Your task to perform on an android device: Do I have any events tomorrow? Image 0: 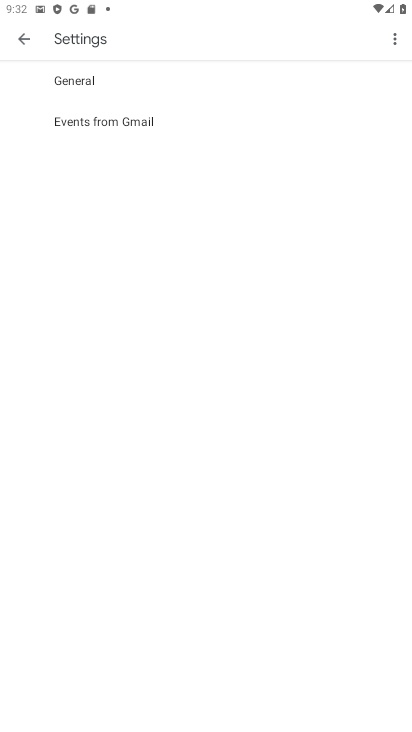
Step 0: press home button
Your task to perform on an android device: Do I have any events tomorrow? Image 1: 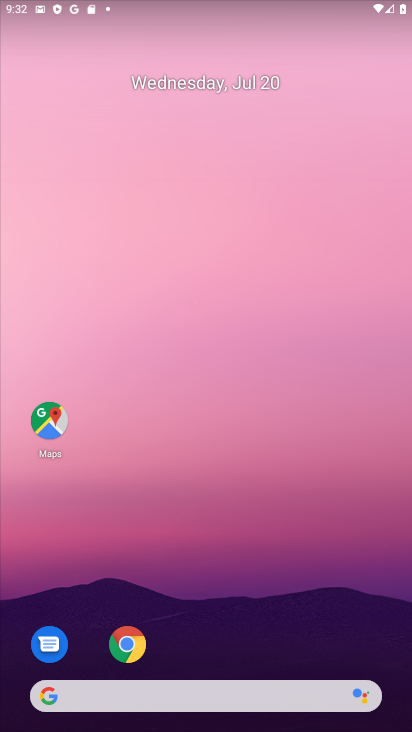
Step 1: drag from (233, 586) to (192, 9)
Your task to perform on an android device: Do I have any events tomorrow? Image 2: 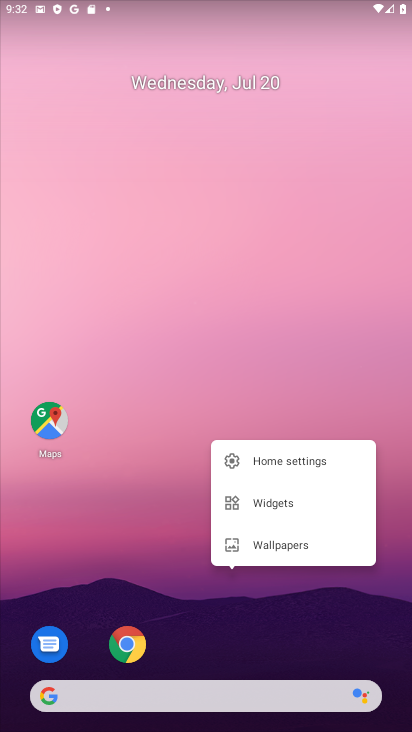
Step 2: click (197, 575)
Your task to perform on an android device: Do I have any events tomorrow? Image 3: 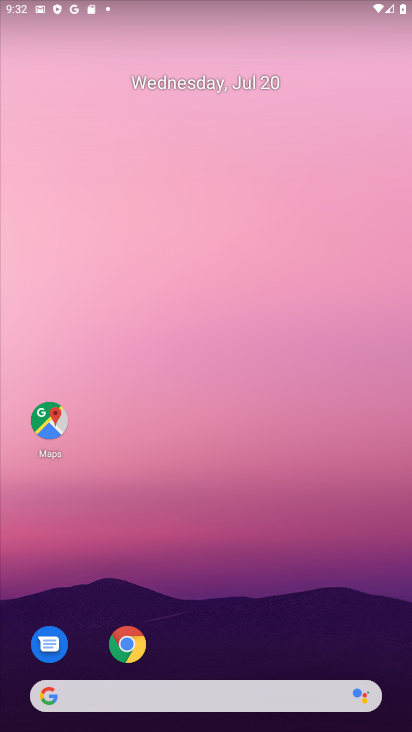
Step 3: drag from (219, 576) to (211, 166)
Your task to perform on an android device: Do I have any events tomorrow? Image 4: 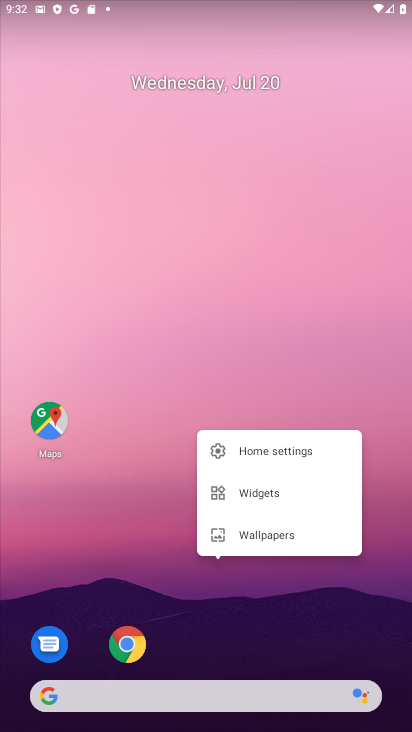
Step 4: click (84, 583)
Your task to perform on an android device: Do I have any events tomorrow? Image 5: 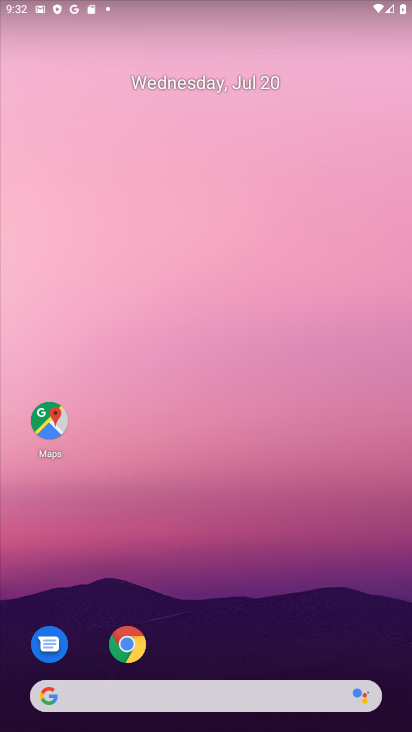
Step 5: drag from (213, 611) to (213, 147)
Your task to perform on an android device: Do I have any events tomorrow? Image 6: 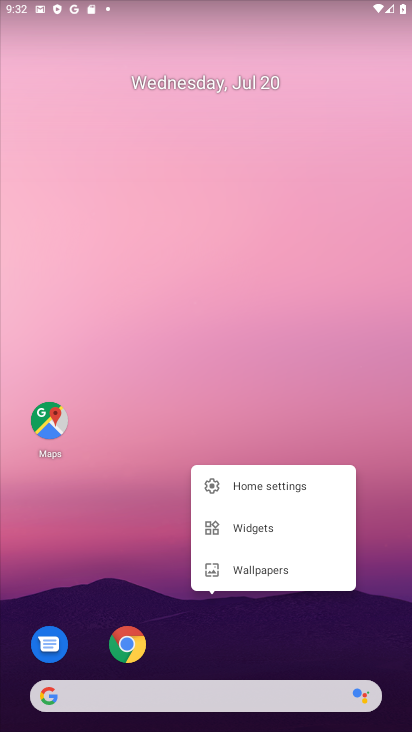
Step 6: click (245, 420)
Your task to perform on an android device: Do I have any events tomorrow? Image 7: 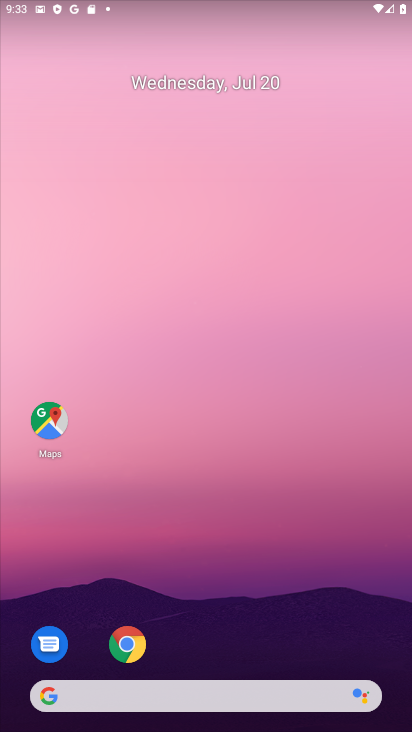
Step 7: drag from (244, 631) to (190, 55)
Your task to perform on an android device: Do I have any events tomorrow? Image 8: 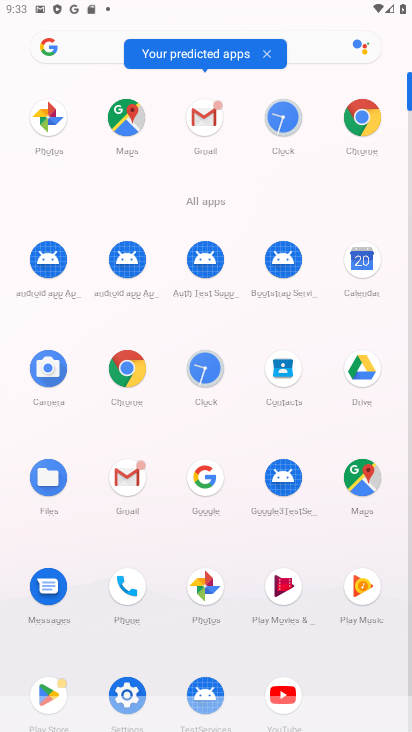
Step 8: click (352, 258)
Your task to perform on an android device: Do I have any events tomorrow? Image 9: 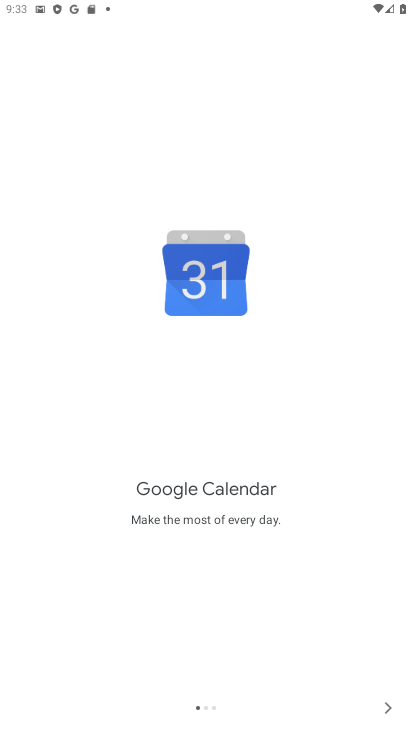
Step 9: click (388, 710)
Your task to perform on an android device: Do I have any events tomorrow? Image 10: 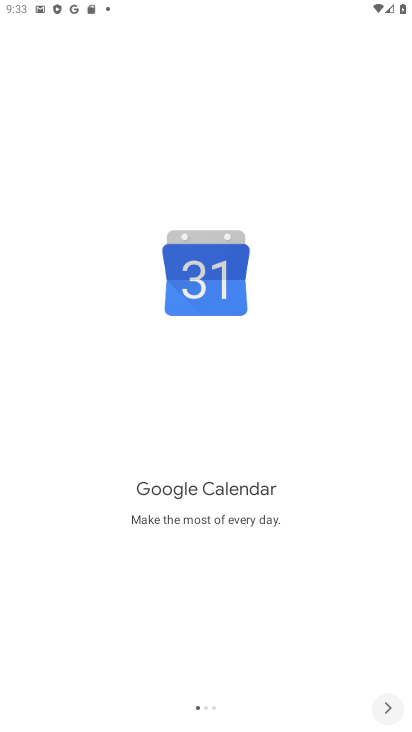
Step 10: click (388, 710)
Your task to perform on an android device: Do I have any events tomorrow? Image 11: 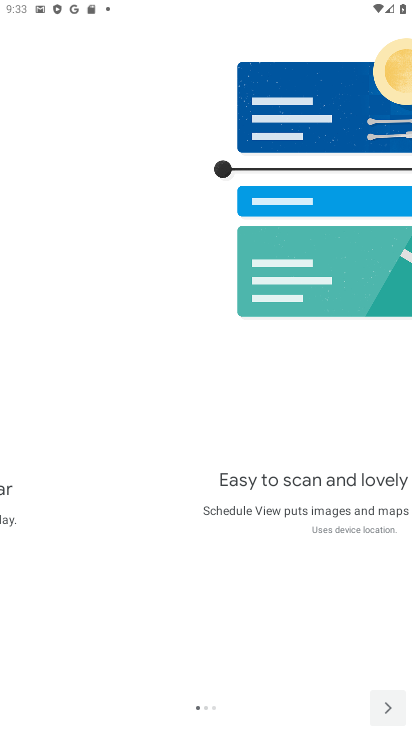
Step 11: click (388, 710)
Your task to perform on an android device: Do I have any events tomorrow? Image 12: 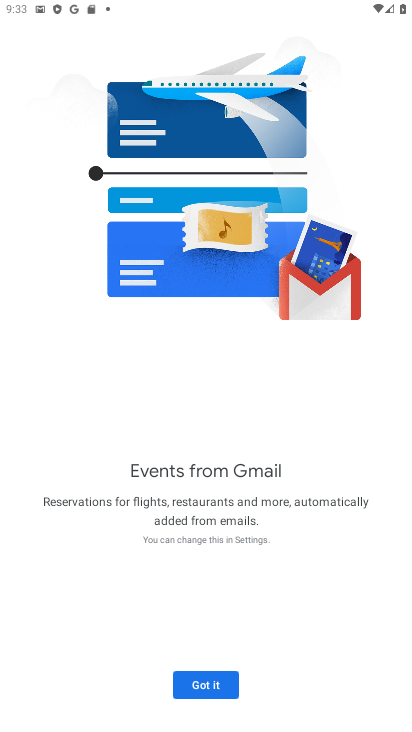
Step 12: click (201, 682)
Your task to perform on an android device: Do I have any events tomorrow? Image 13: 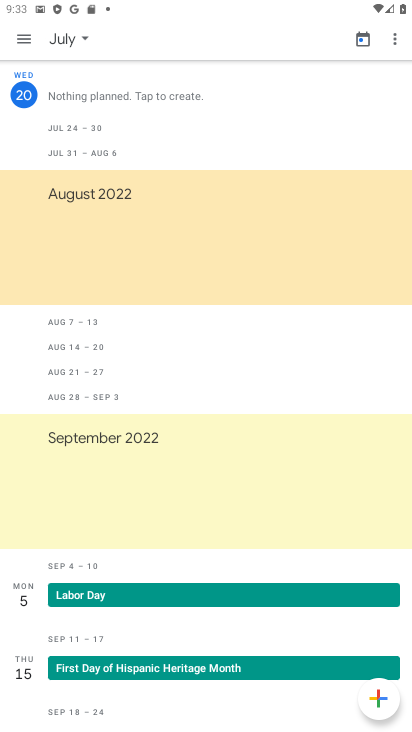
Step 13: click (80, 36)
Your task to perform on an android device: Do I have any events tomorrow? Image 14: 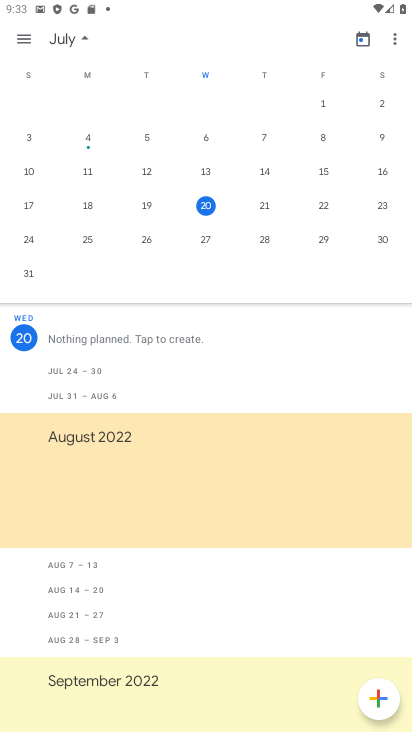
Step 14: click (204, 204)
Your task to perform on an android device: Do I have any events tomorrow? Image 15: 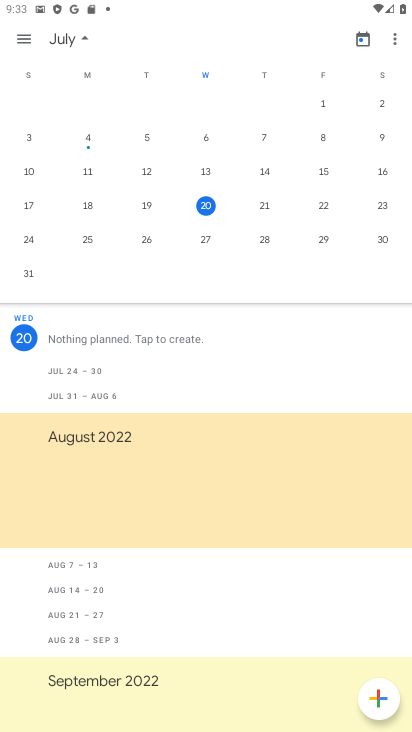
Step 15: click (267, 211)
Your task to perform on an android device: Do I have any events tomorrow? Image 16: 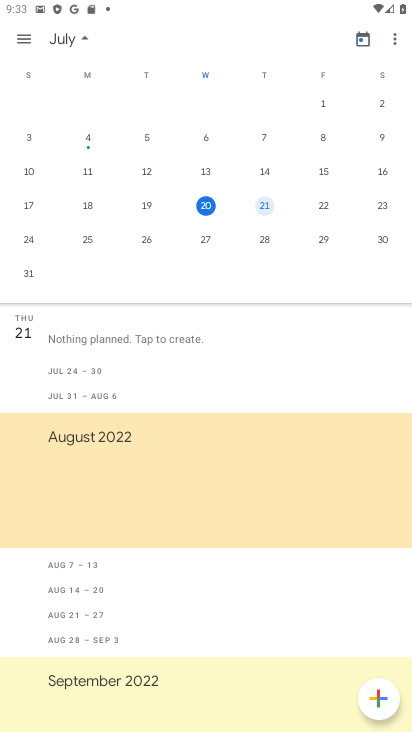
Step 16: click (265, 204)
Your task to perform on an android device: Do I have any events tomorrow? Image 17: 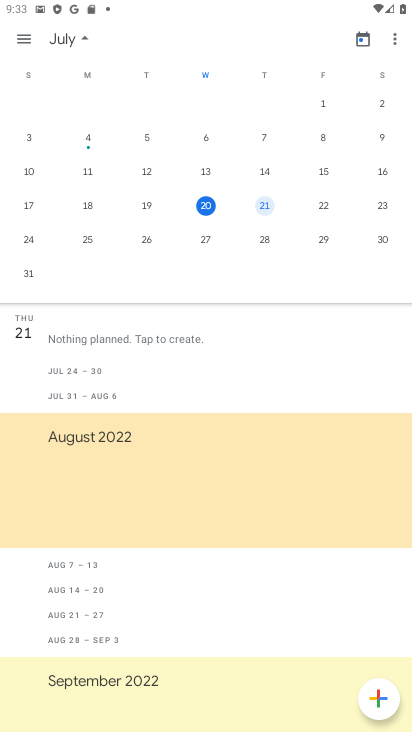
Step 17: click (265, 204)
Your task to perform on an android device: Do I have any events tomorrow? Image 18: 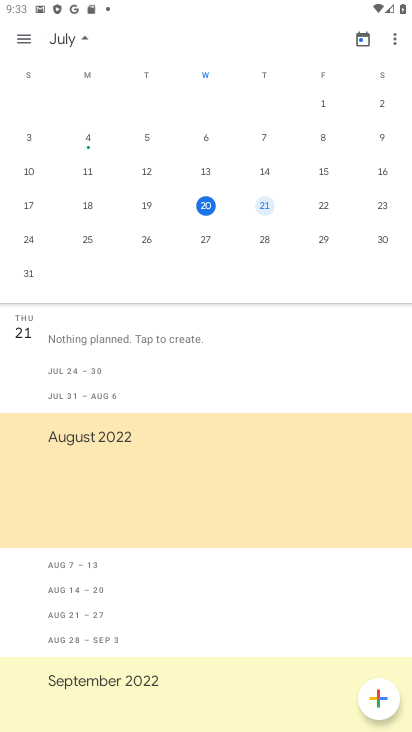
Step 18: task complete